Your task to perform on an android device: Show me popular videos on Youtube Image 0: 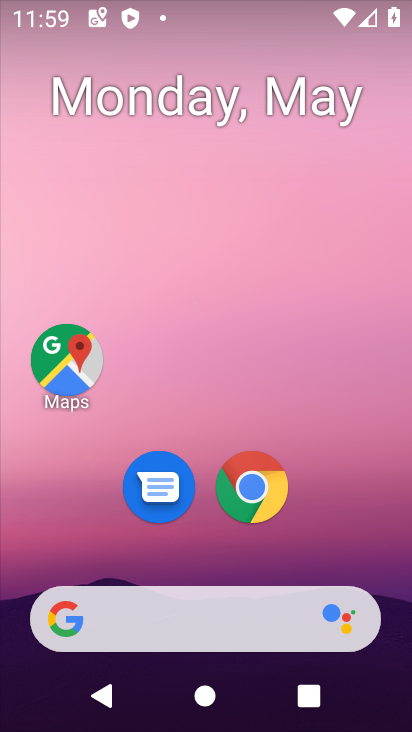
Step 0: drag from (389, 557) to (381, 179)
Your task to perform on an android device: Show me popular videos on Youtube Image 1: 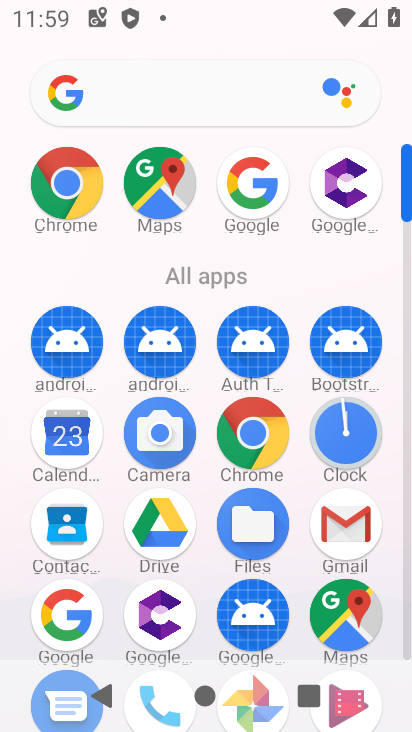
Step 1: drag from (392, 685) to (399, 342)
Your task to perform on an android device: Show me popular videos on Youtube Image 2: 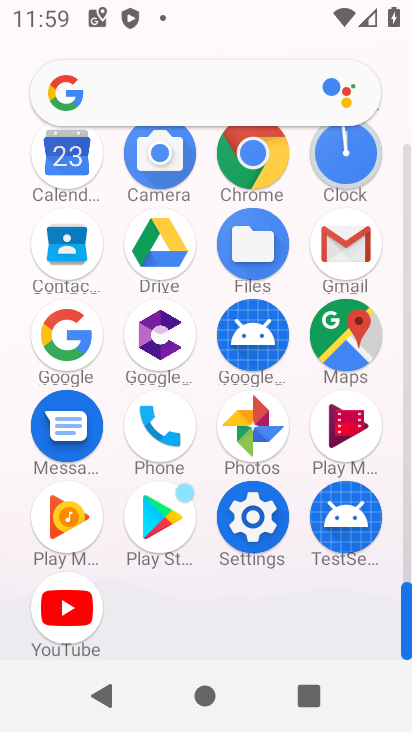
Step 2: click (54, 626)
Your task to perform on an android device: Show me popular videos on Youtube Image 3: 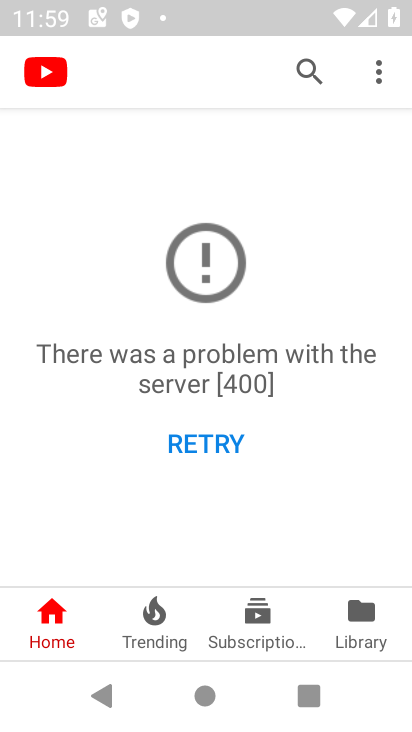
Step 3: task complete